Your task to perform on an android device: Search for lenovo thinkpad on newegg.com, select the first entry, add it to the cart, then select checkout. Image 0: 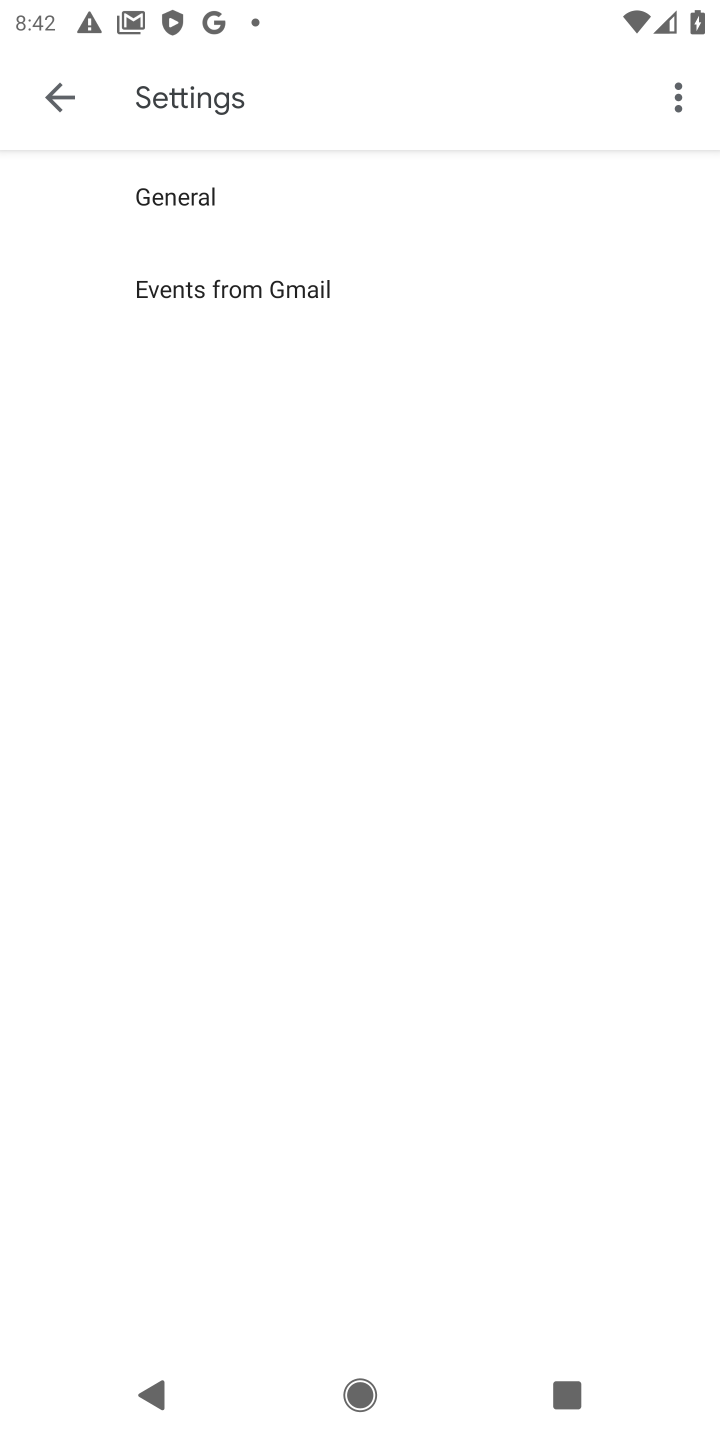
Step 0: press home button
Your task to perform on an android device: Search for lenovo thinkpad on newegg.com, select the first entry, add it to the cart, then select checkout. Image 1: 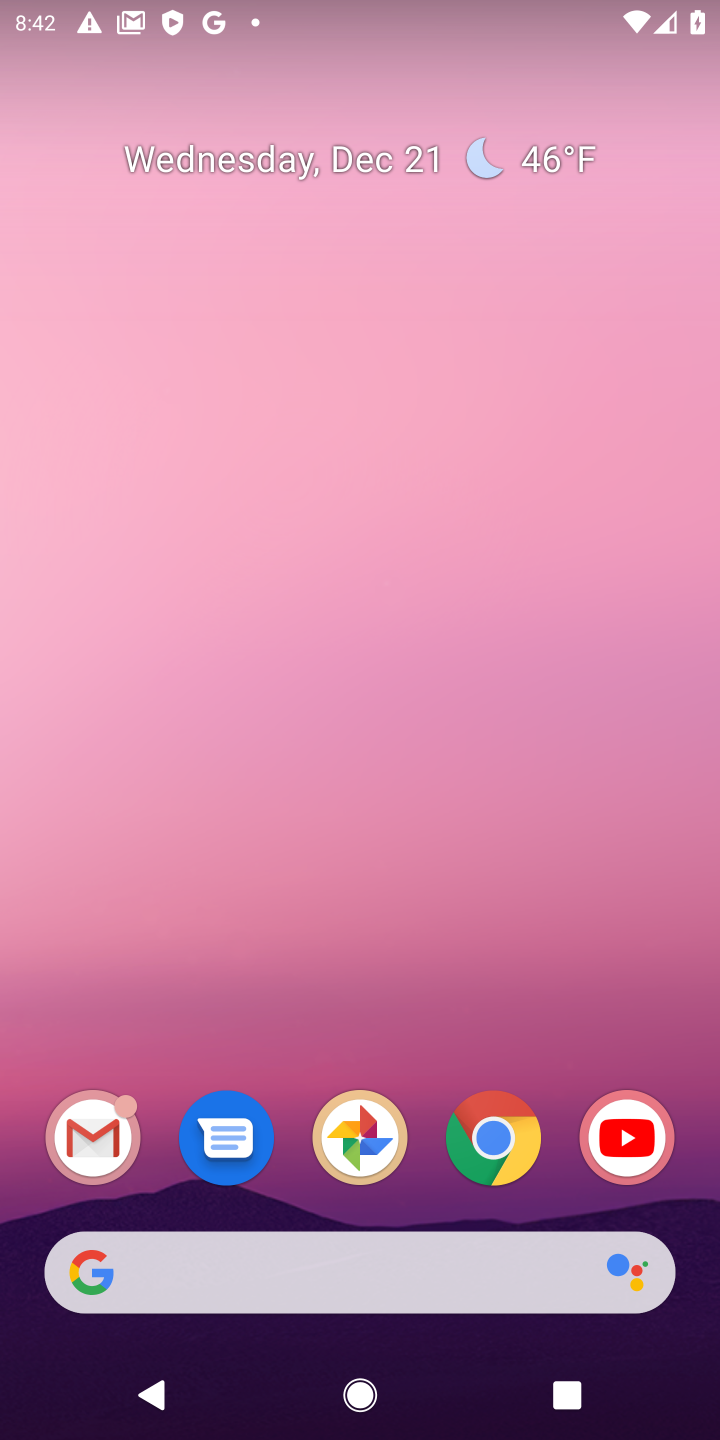
Step 1: click (501, 1143)
Your task to perform on an android device: Search for lenovo thinkpad on newegg.com, select the first entry, add it to the cart, then select checkout. Image 2: 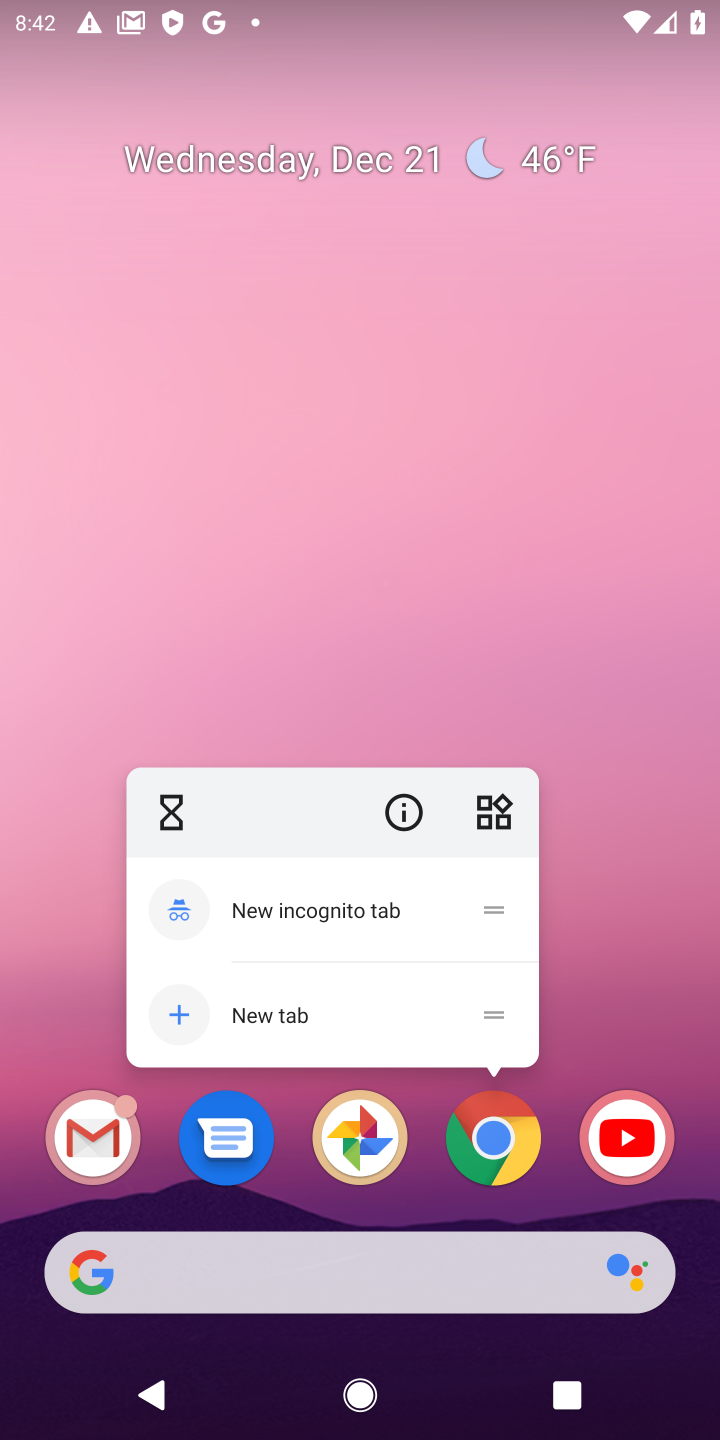
Step 2: click (501, 1143)
Your task to perform on an android device: Search for lenovo thinkpad on newegg.com, select the first entry, add it to the cart, then select checkout. Image 3: 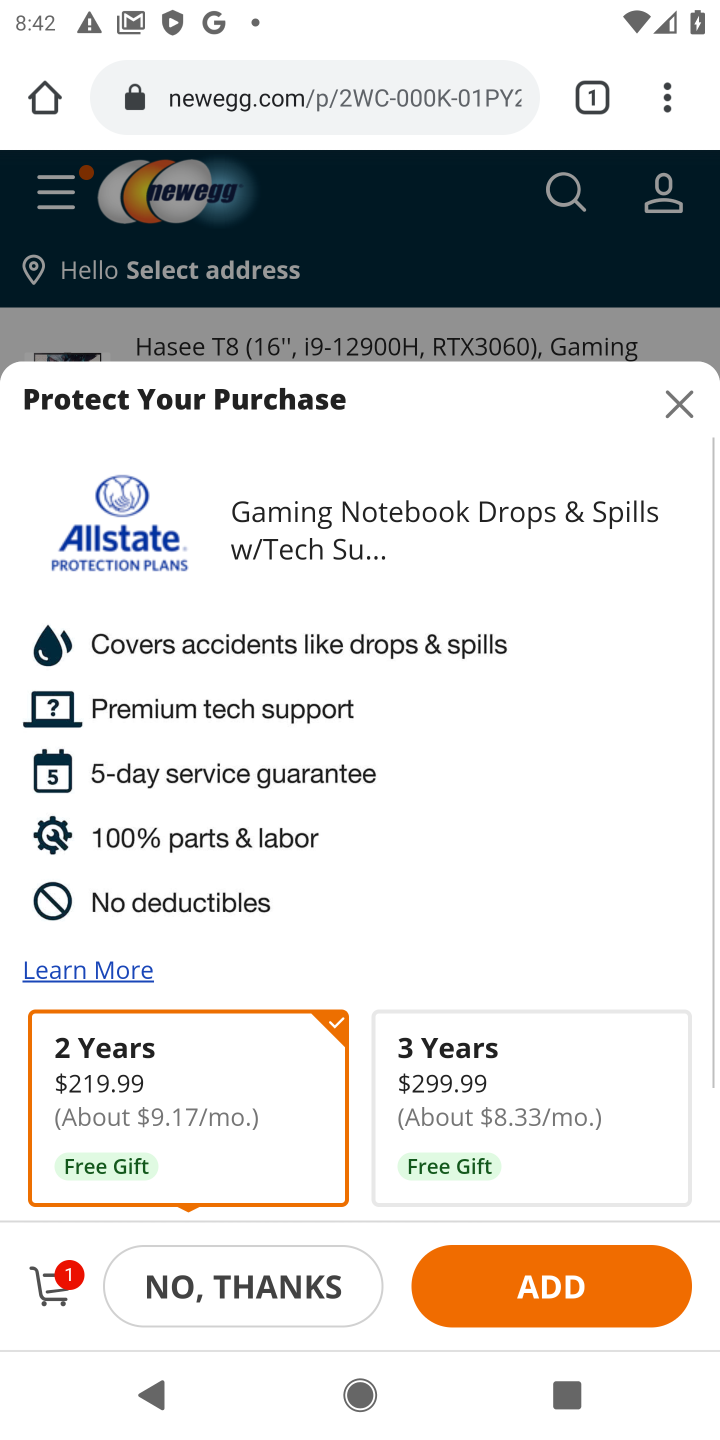
Step 3: click (677, 410)
Your task to perform on an android device: Search for lenovo thinkpad on newegg.com, select the first entry, add it to the cart, then select checkout. Image 4: 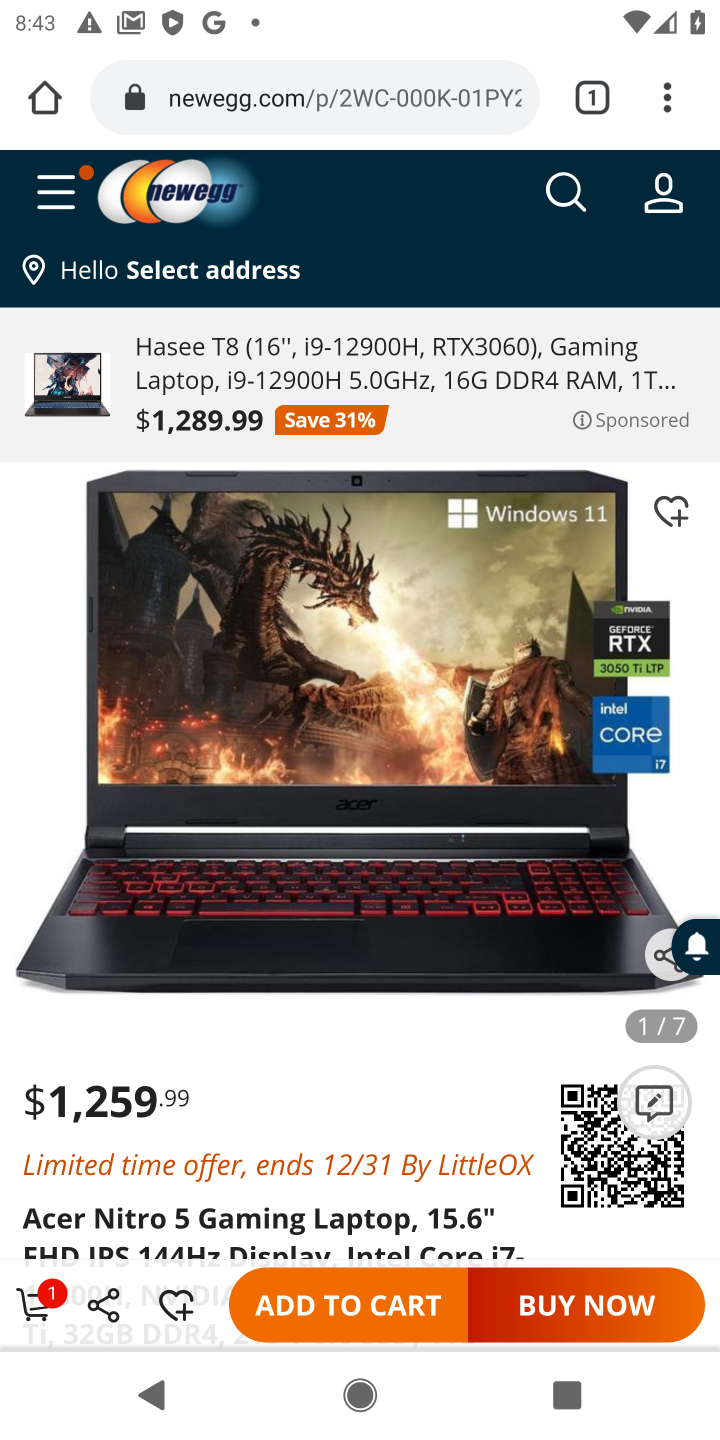
Step 4: click (559, 200)
Your task to perform on an android device: Search for lenovo thinkpad on newegg.com, select the first entry, add it to the cart, then select checkout. Image 5: 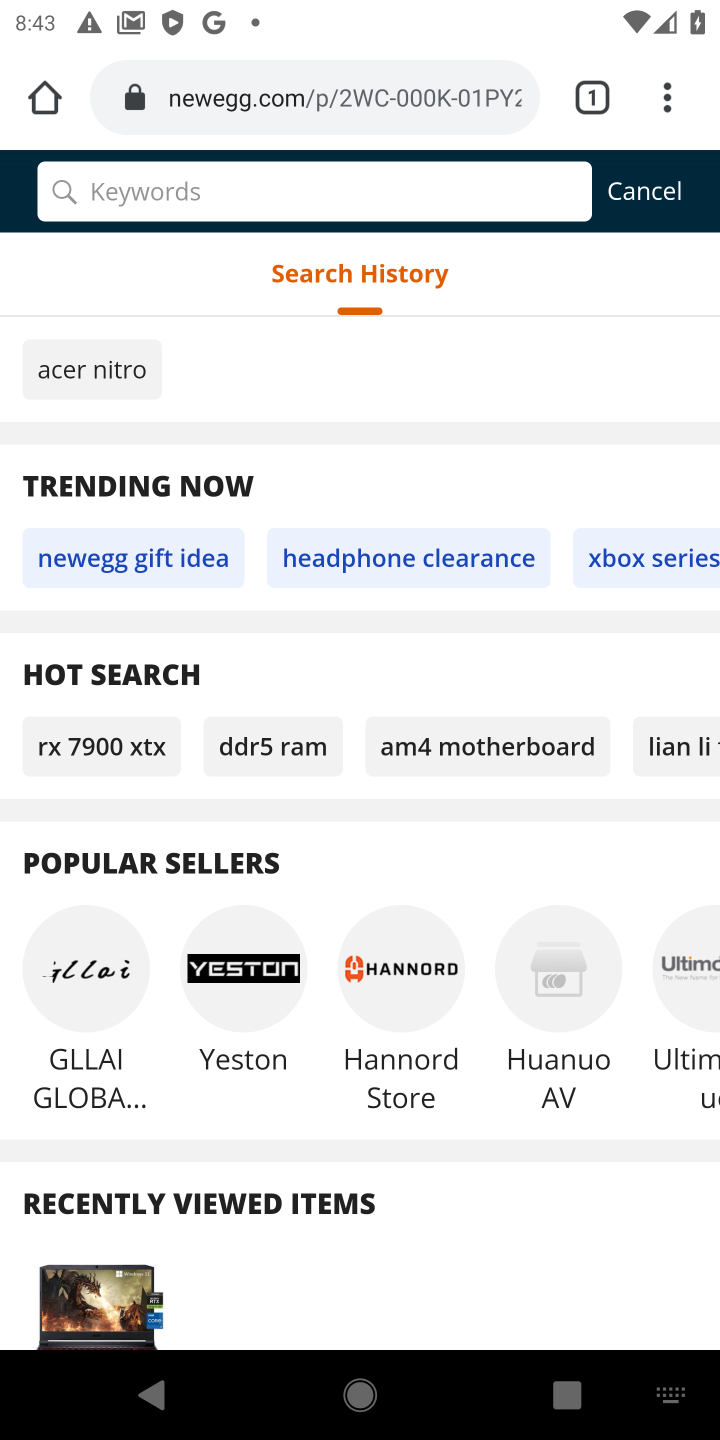
Step 5: type " lenovo thinkpad "
Your task to perform on an android device: Search for lenovo thinkpad on newegg.com, select the first entry, add it to the cart, then select checkout. Image 6: 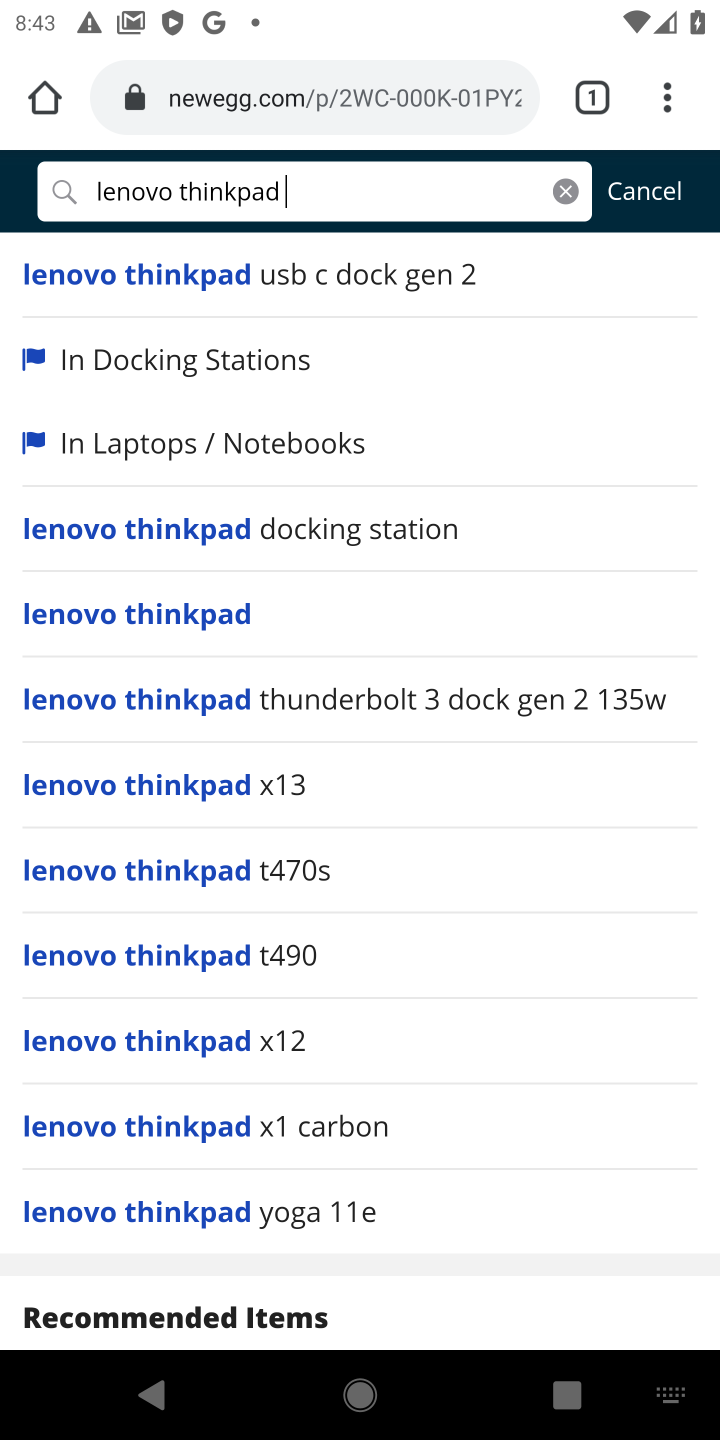
Step 6: click (133, 623)
Your task to perform on an android device: Search for lenovo thinkpad on newegg.com, select the first entry, add it to the cart, then select checkout. Image 7: 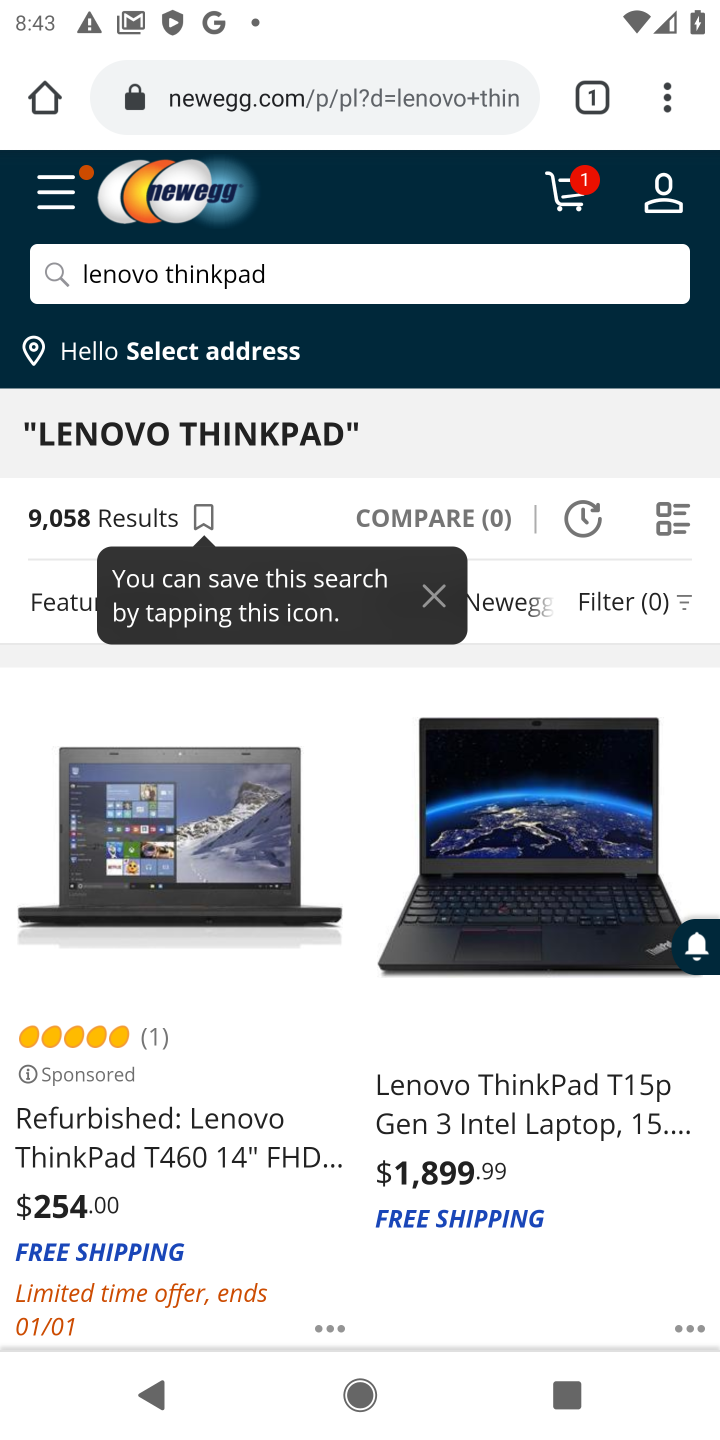
Step 7: click (119, 1137)
Your task to perform on an android device: Search for lenovo thinkpad on newegg.com, select the first entry, add it to the cart, then select checkout. Image 8: 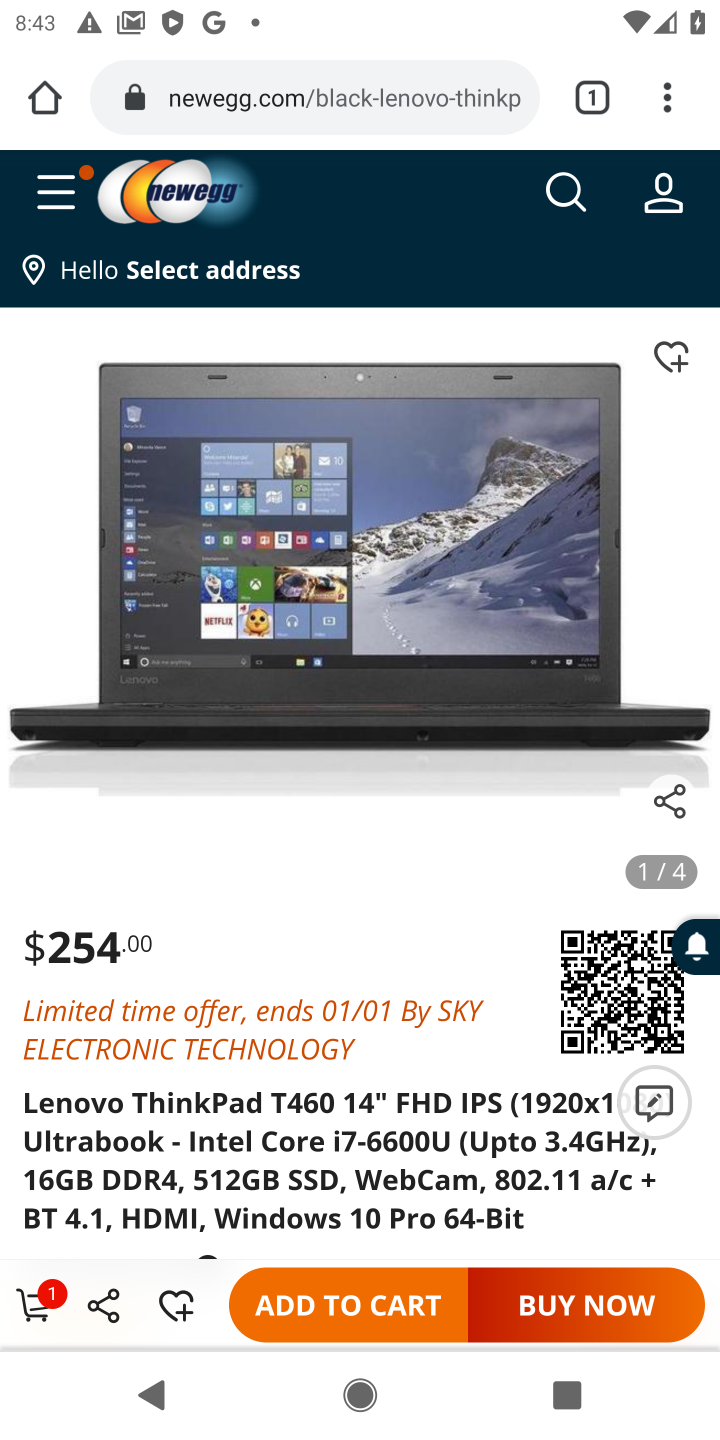
Step 8: click (364, 1309)
Your task to perform on an android device: Search for lenovo thinkpad on newegg.com, select the first entry, add it to the cart, then select checkout. Image 9: 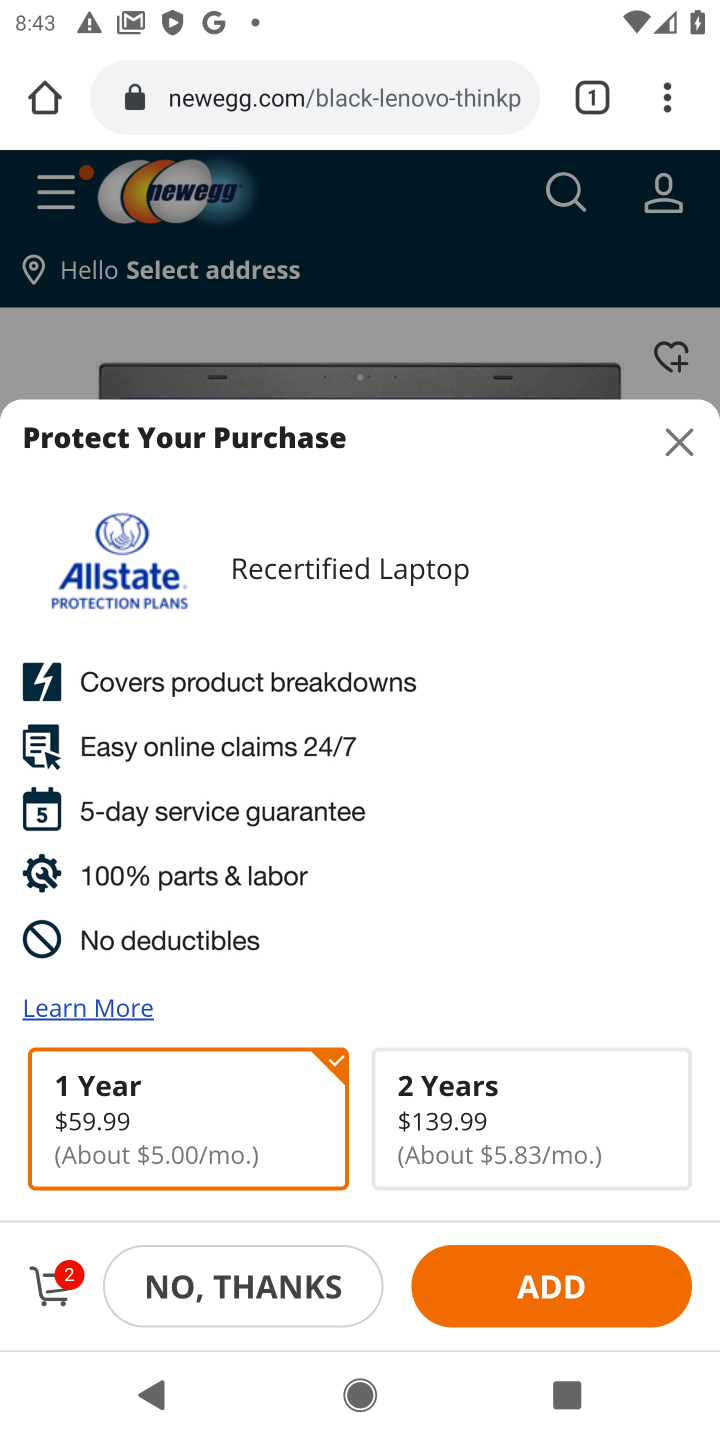
Step 9: click (60, 1287)
Your task to perform on an android device: Search for lenovo thinkpad on newegg.com, select the first entry, add it to the cart, then select checkout. Image 10: 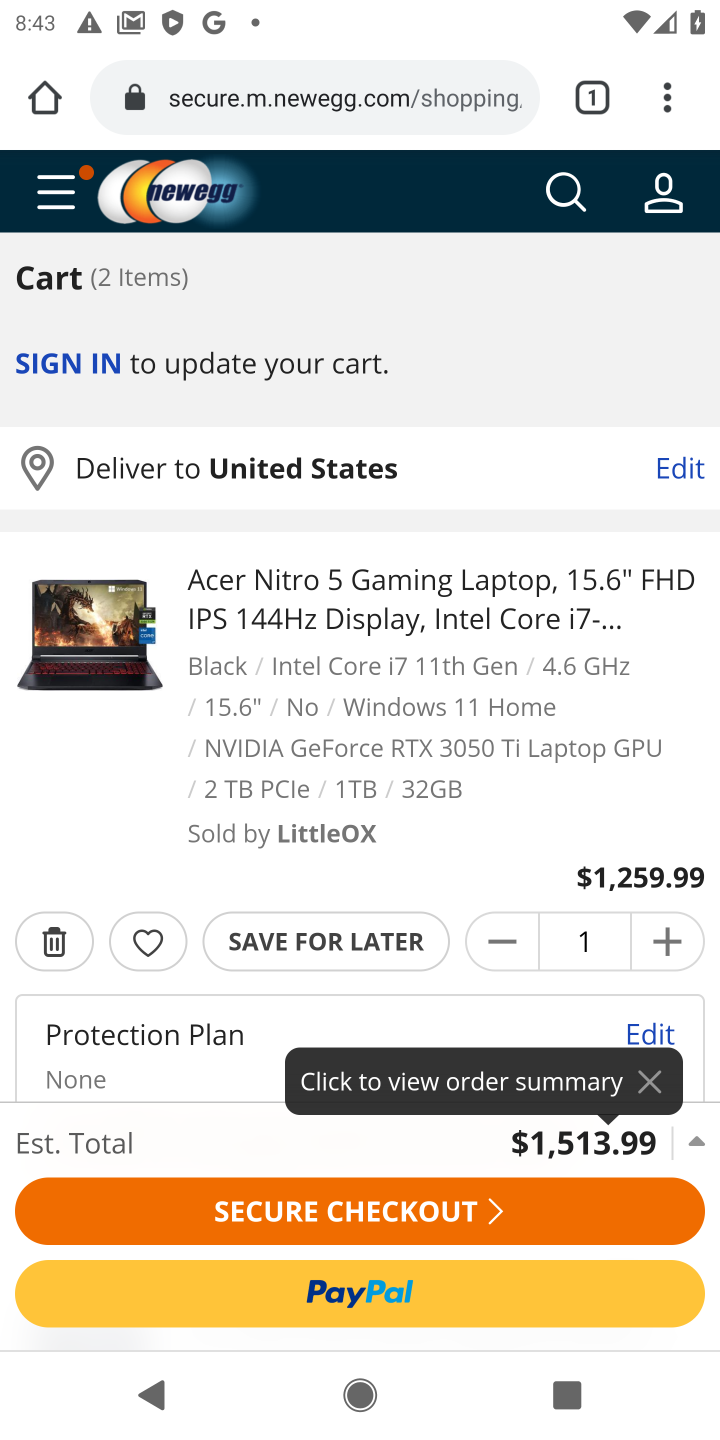
Step 10: click (346, 1215)
Your task to perform on an android device: Search for lenovo thinkpad on newegg.com, select the first entry, add it to the cart, then select checkout. Image 11: 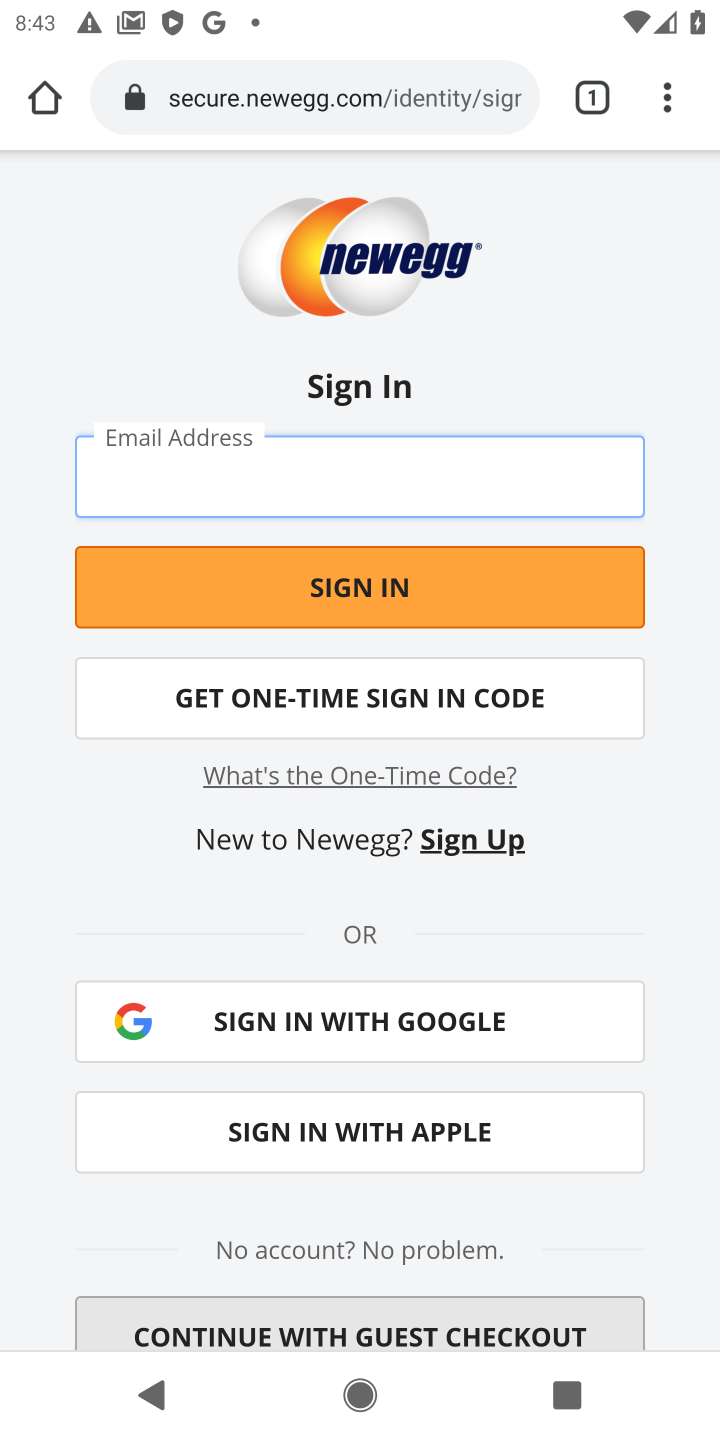
Step 11: task complete